Your task to perform on an android device: add a label to a message in the gmail app Image 0: 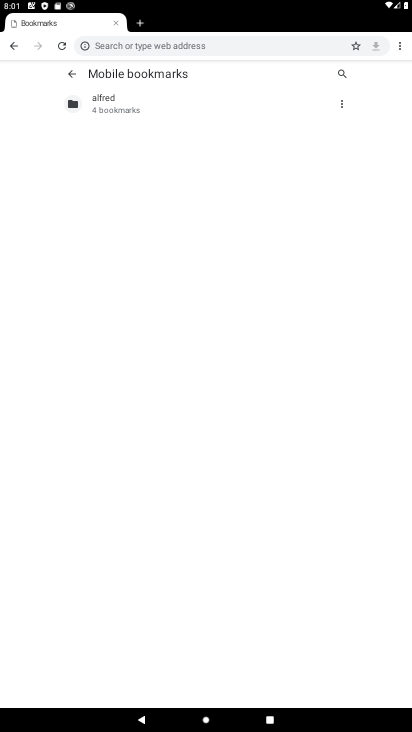
Step 0: press home button
Your task to perform on an android device: add a label to a message in the gmail app Image 1: 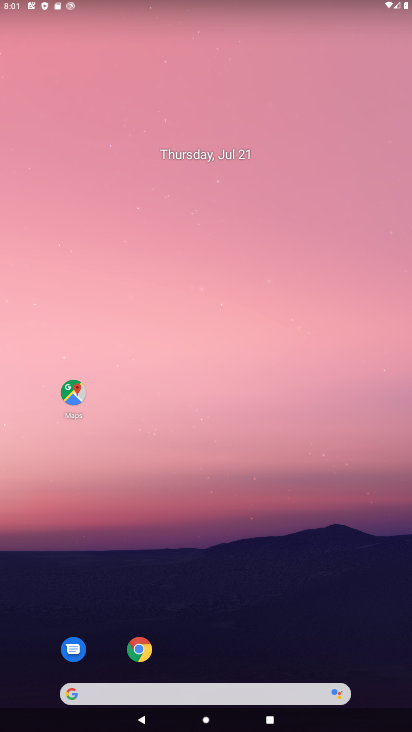
Step 1: drag from (234, 648) to (276, 99)
Your task to perform on an android device: add a label to a message in the gmail app Image 2: 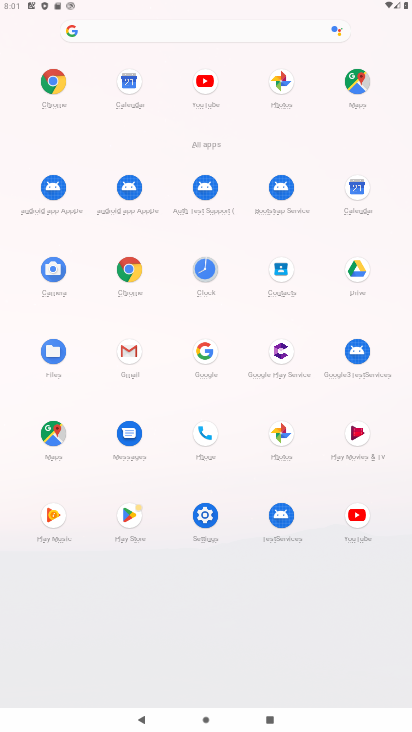
Step 2: click (132, 359)
Your task to perform on an android device: add a label to a message in the gmail app Image 3: 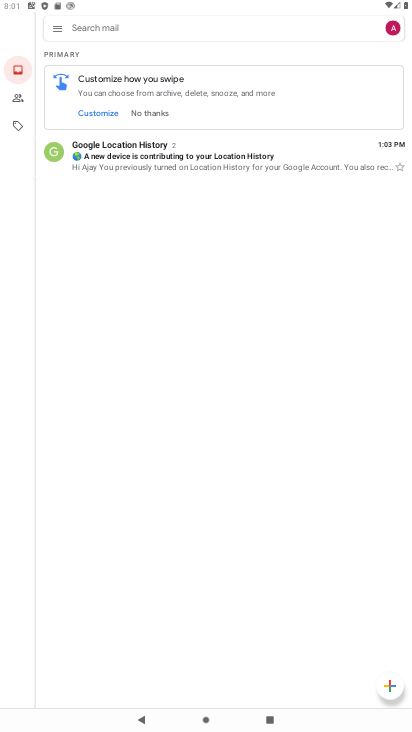
Step 3: click (53, 157)
Your task to perform on an android device: add a label to a message in the gmail app Image 4: 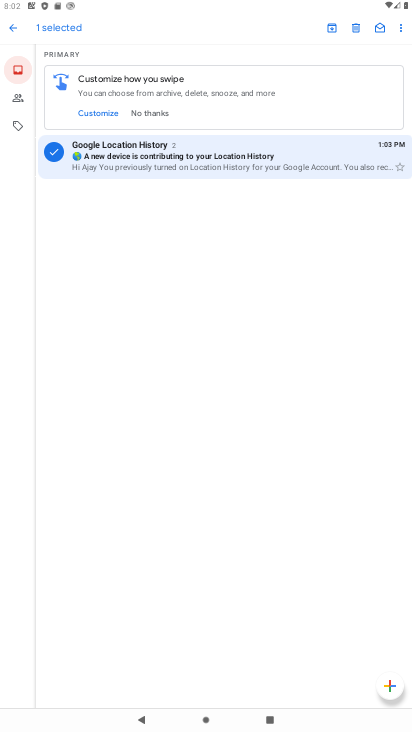
Step 4: click (396, 27)
Your task to perform on an android device: add a label to a message in the gmail app Image 5: 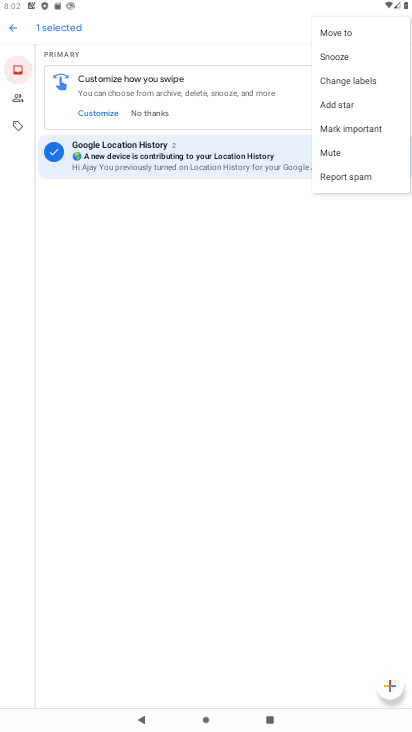
Step 5: click (356, 81)
Your task to perform on an android device: add a label to a message in the gmail app Image 6: 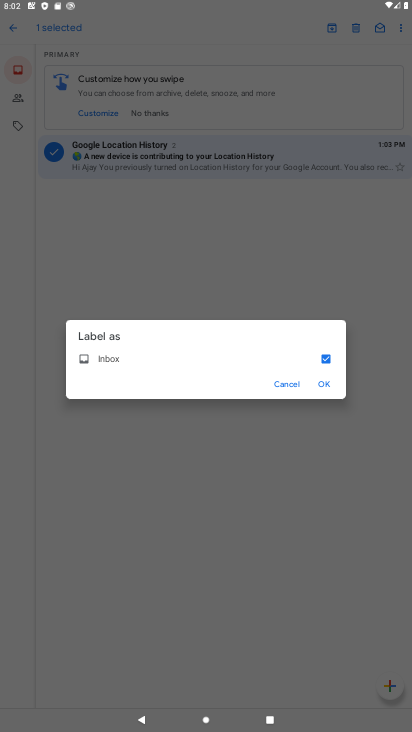
Step 6: click (313, 362)
Your task to perform on an android device: add a label to a message in the gmail app Image 7: 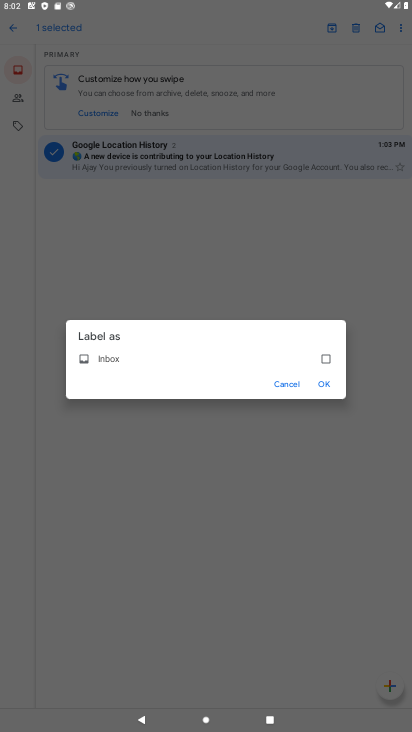
Step 7: click (324, 377)
Your task to perform on an android device: add a label to a message in the gmail app Image 8: 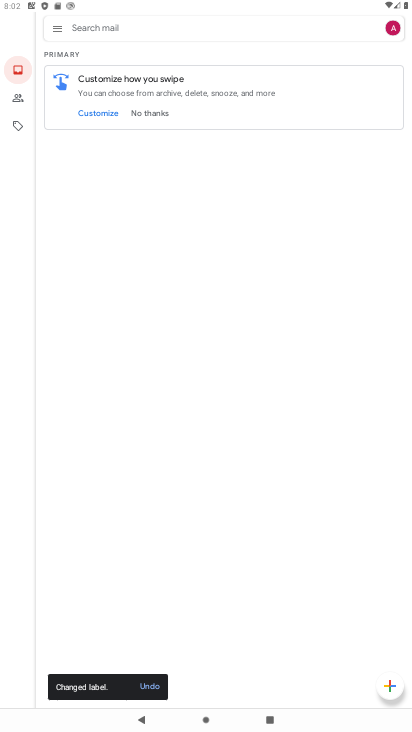
Step 8: task complete